Your task to perform on an android device: What is the news today? Image 0: 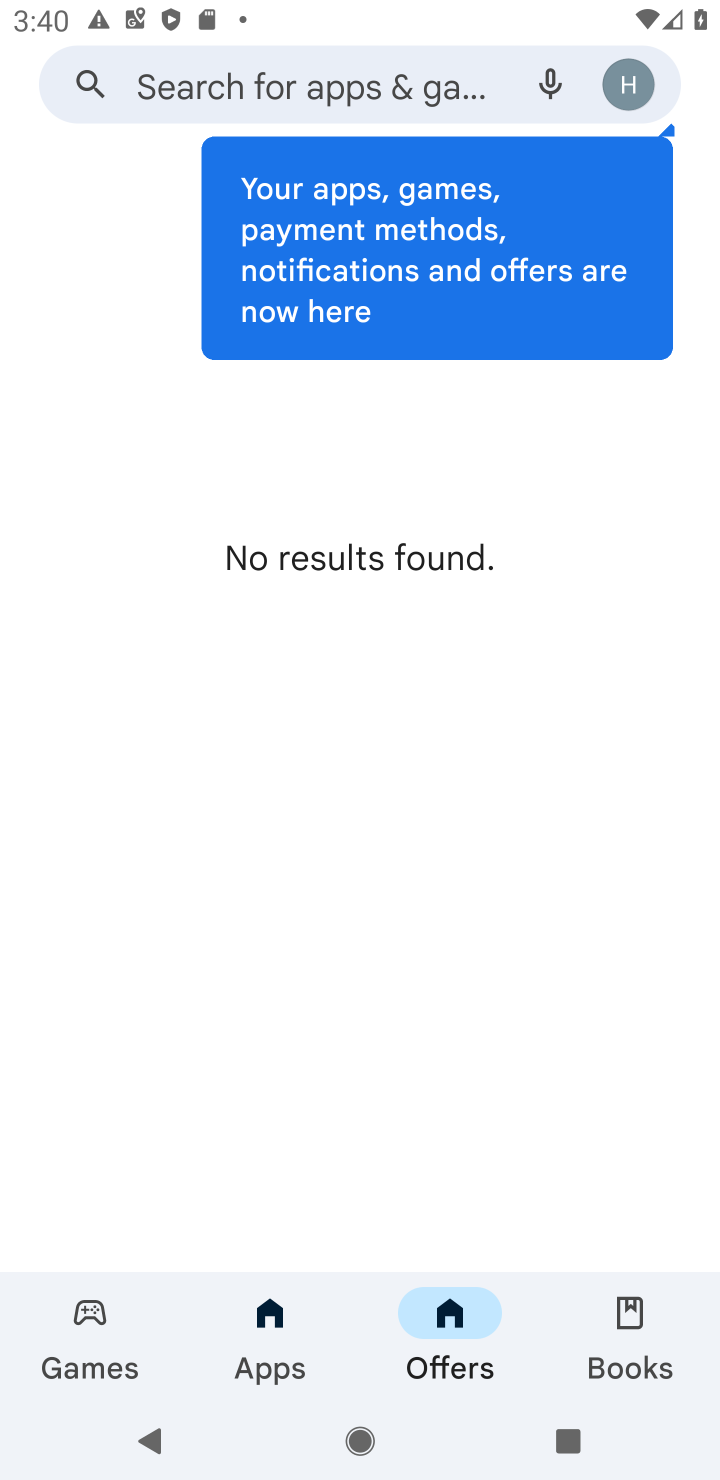
Step 0: press home button
Your task to perform on an android device: What is the news today? Image 1: 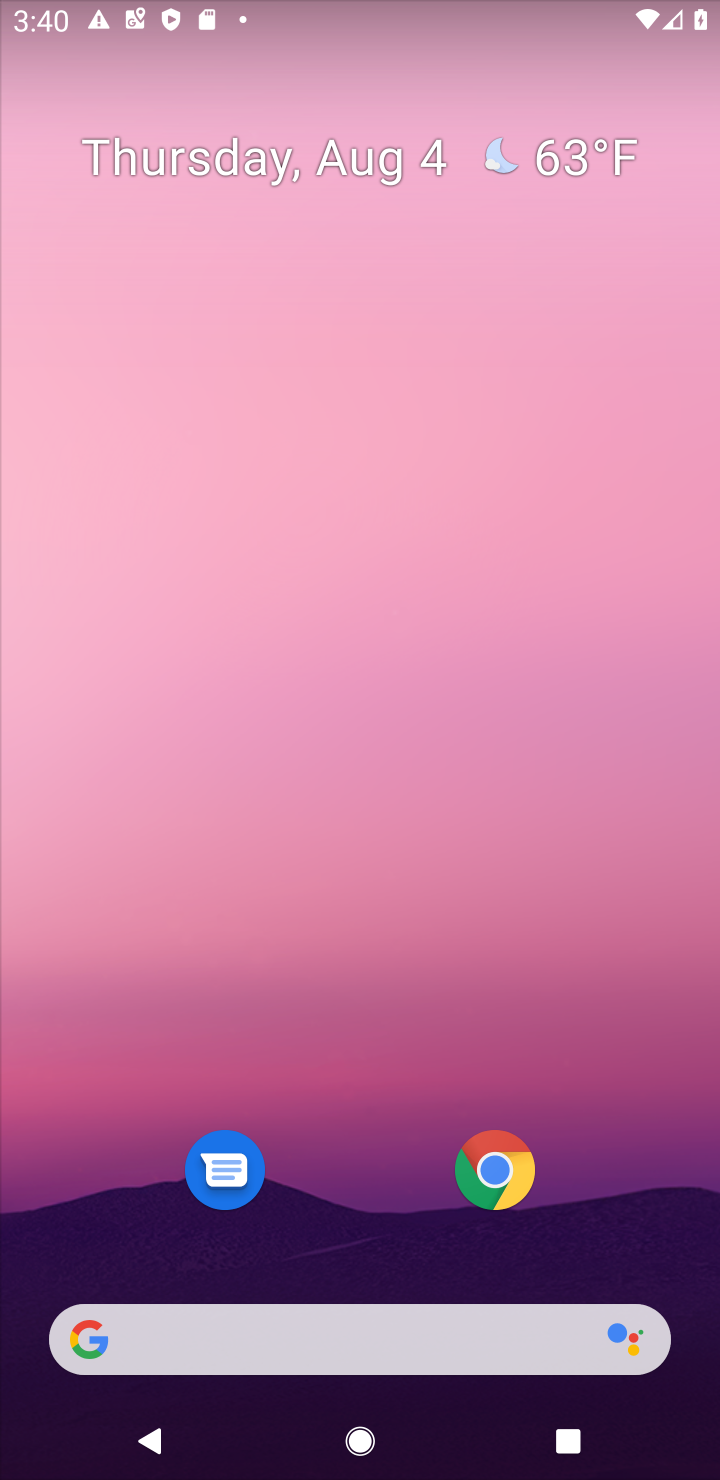
Step 1: task complete